Your task to perform on an android device: find photos in the google photos app Image 0: 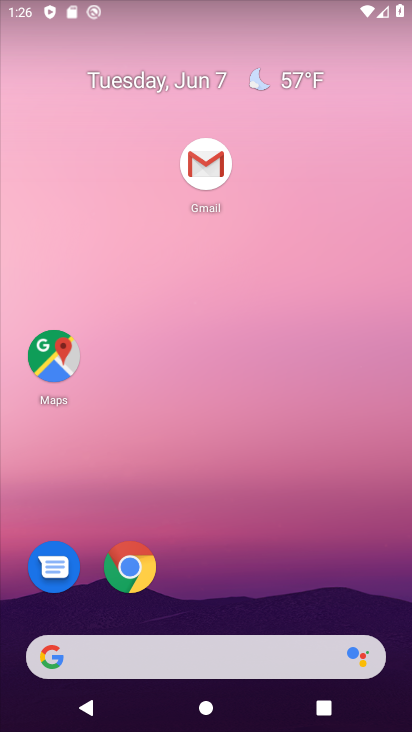
Step 0: drag from (204, 582) to (215, 147)
Your task to perform on an android device: find photos in the google photos app Image 1: 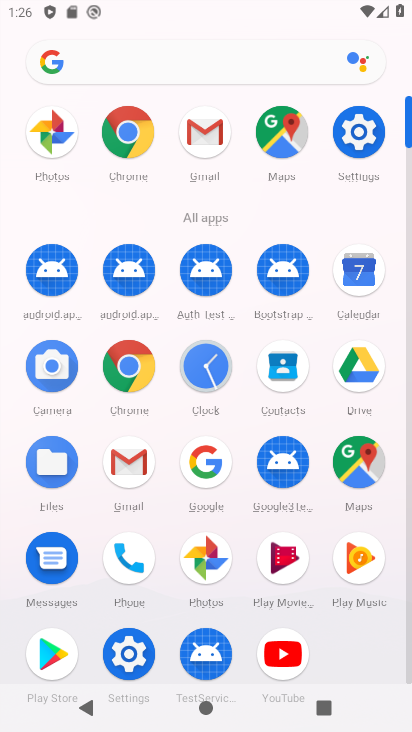
Step 1: click (203, 555)
Your task to perform on an android device: find photos in the google photos app Image 2: 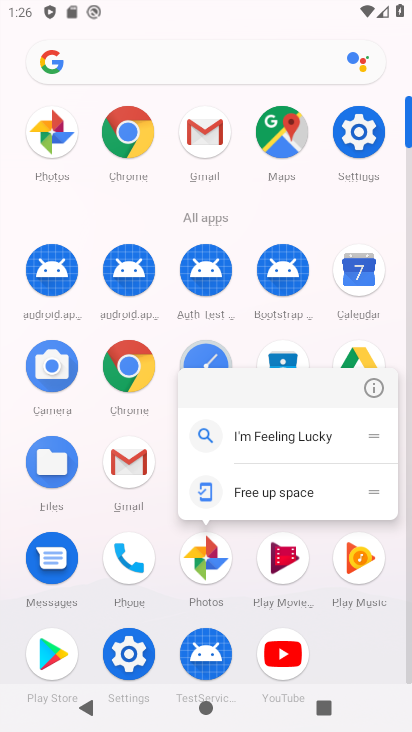
Step 2: click (203, 555)
Your task to perform on an android device: find photos in the google photos app Image 3: 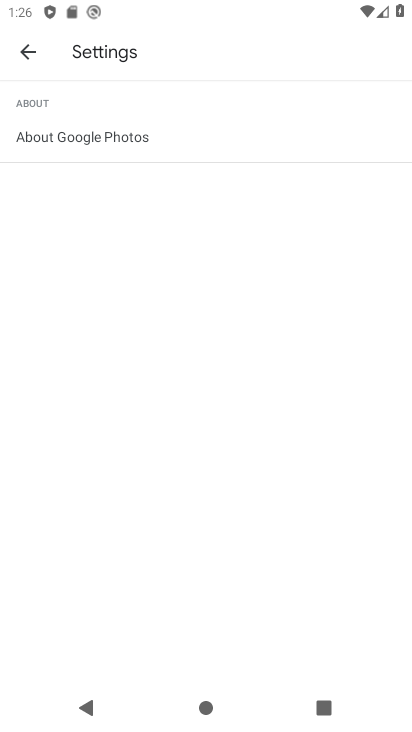
Step 3: task complete